Your task to perform on an android device: Empty the shopping cart on costco. Add "razer thresher" to the cart on costco, then select checkout. Image 0: 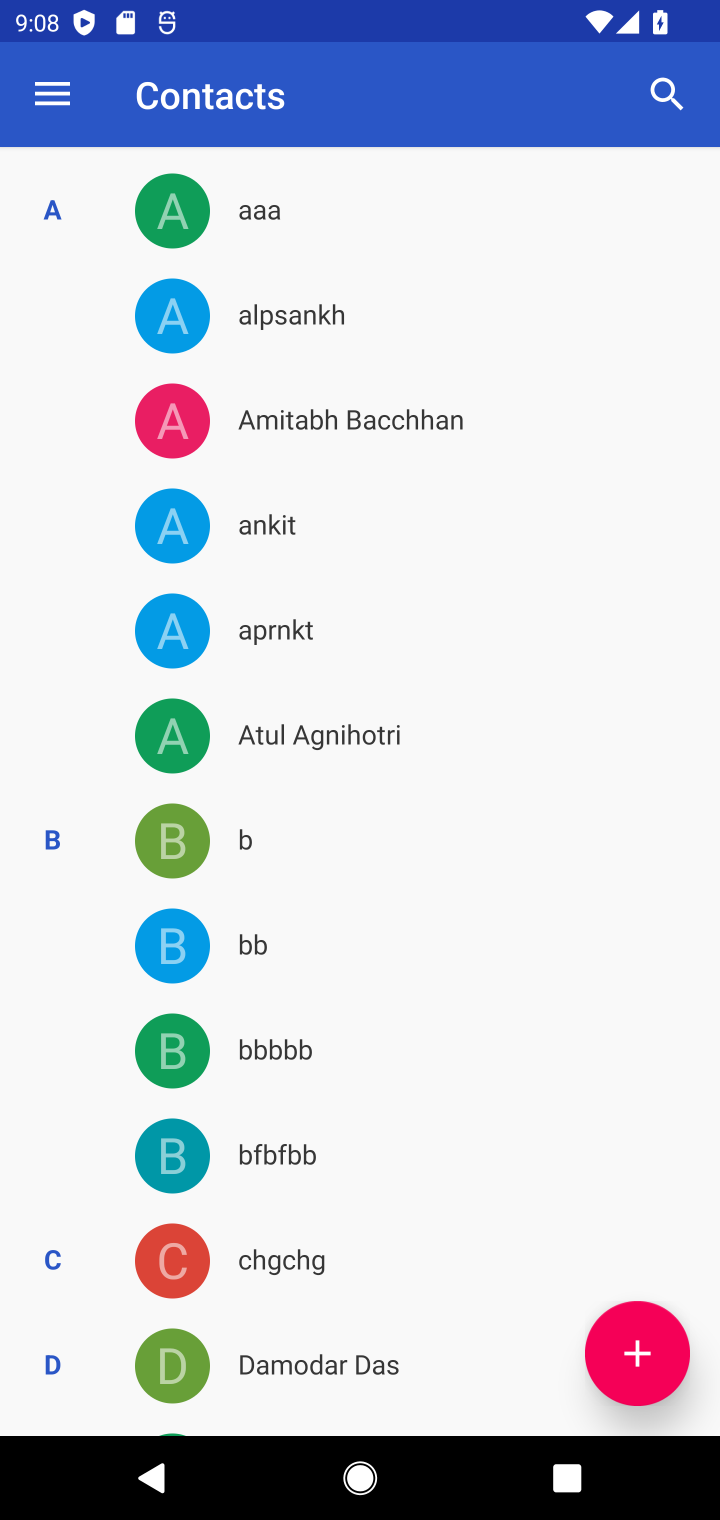
Step 0: press home button
Your task to perform on an android device: Empty the shopping cart on costco. Add "razer thresher" to the cart on costco, then select checkout. Image 1: 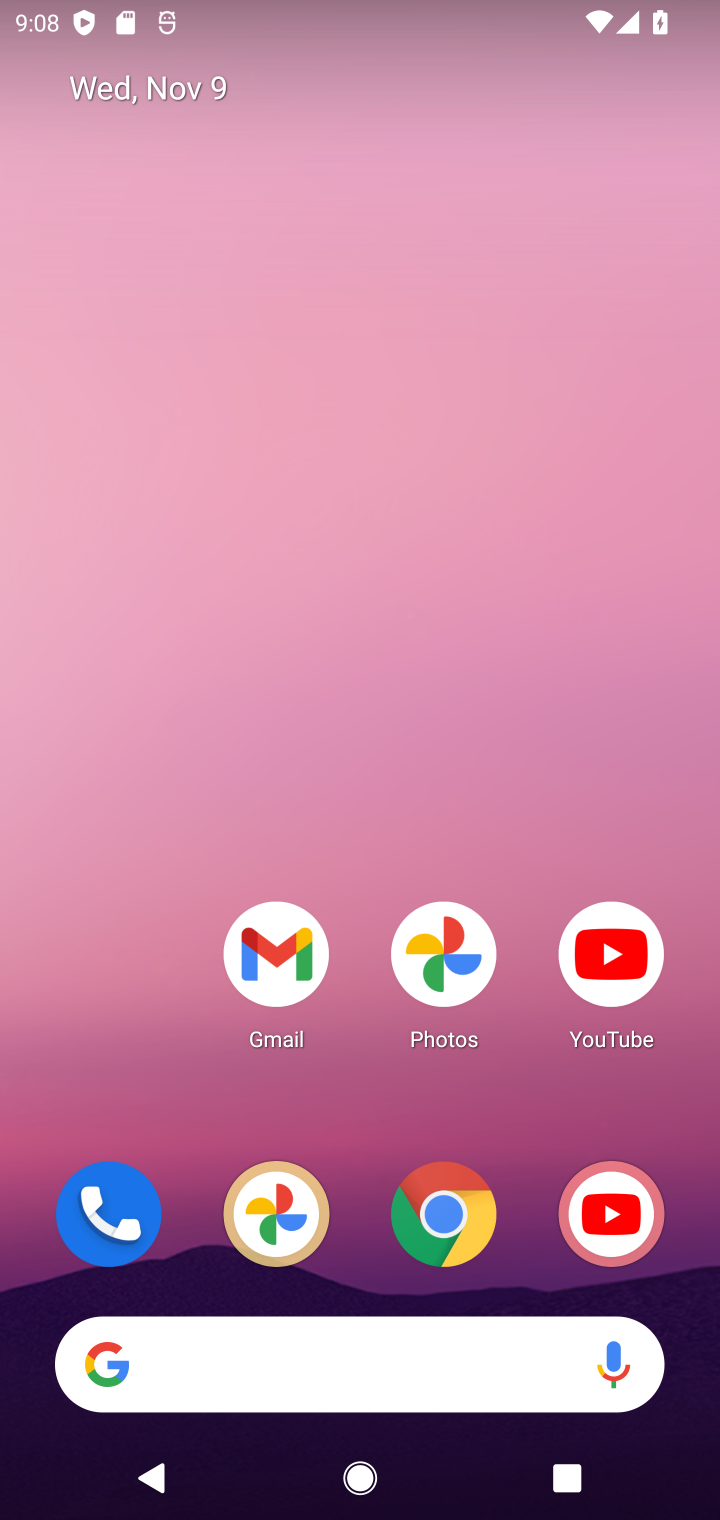
Step 1: drag from (359, 427) to (350, 16)
Your task to perform on an android device: Empty the shopping cart on costco. Add "razer thresher" to the cart on costco, then select checkout. Image 2: 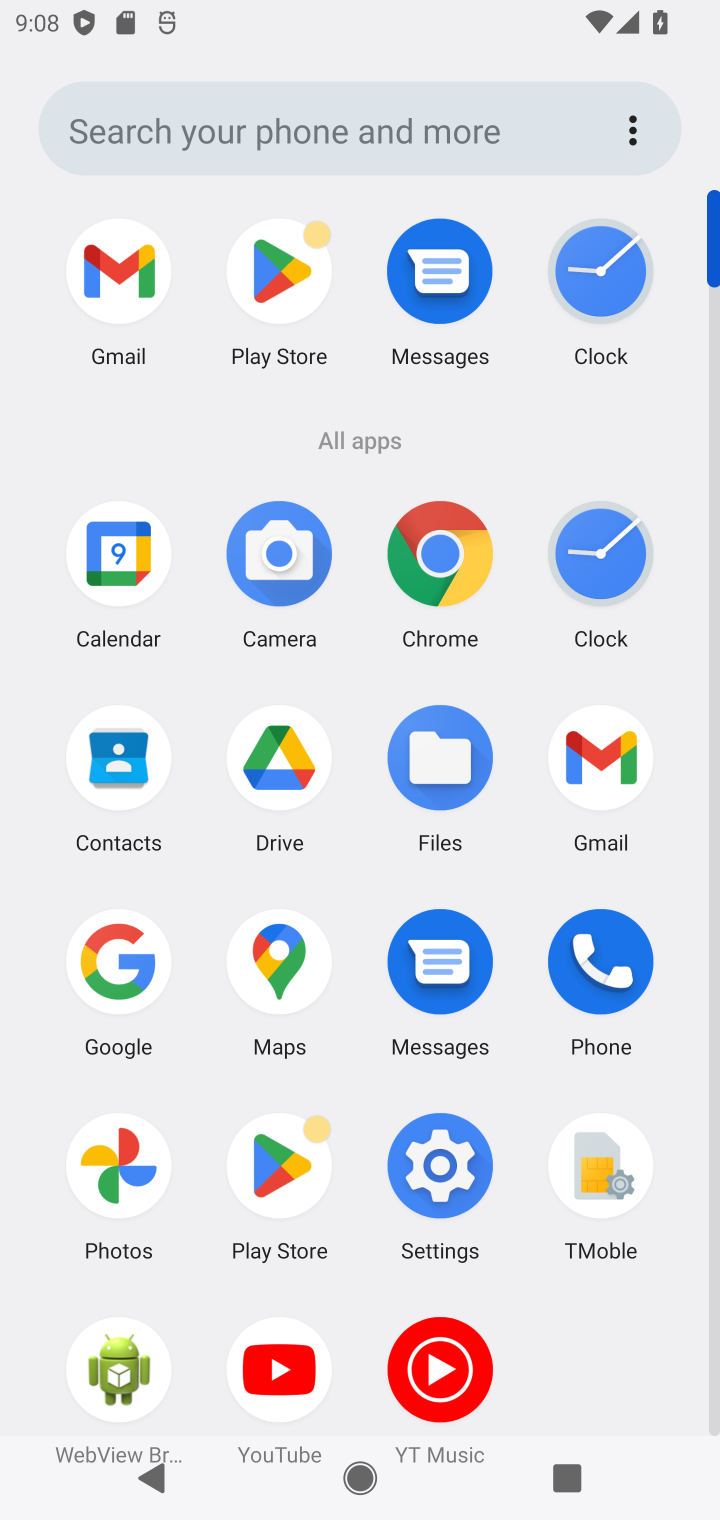
Step 2: click (422, 559)
Your task to perform on an android device: Empty the shopping cart on costco. Add "razer thresher" to the cart on costco, then select checkout. Image 3: 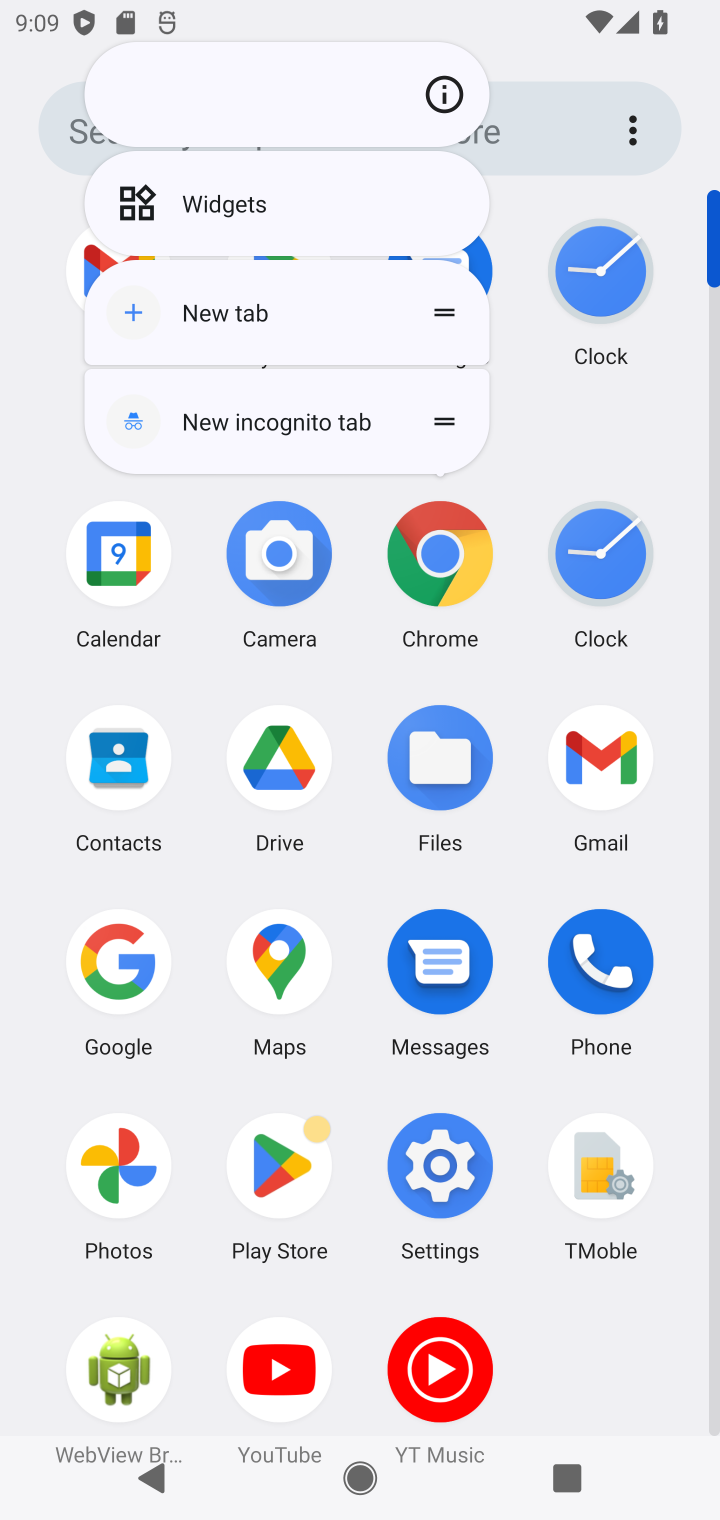
Step 3: click (455, 567)
Your task to perform on an android device: Empty the shopping cart on costco. Add "razer thresher" to the cart on costco, then select checkout. Image 4: 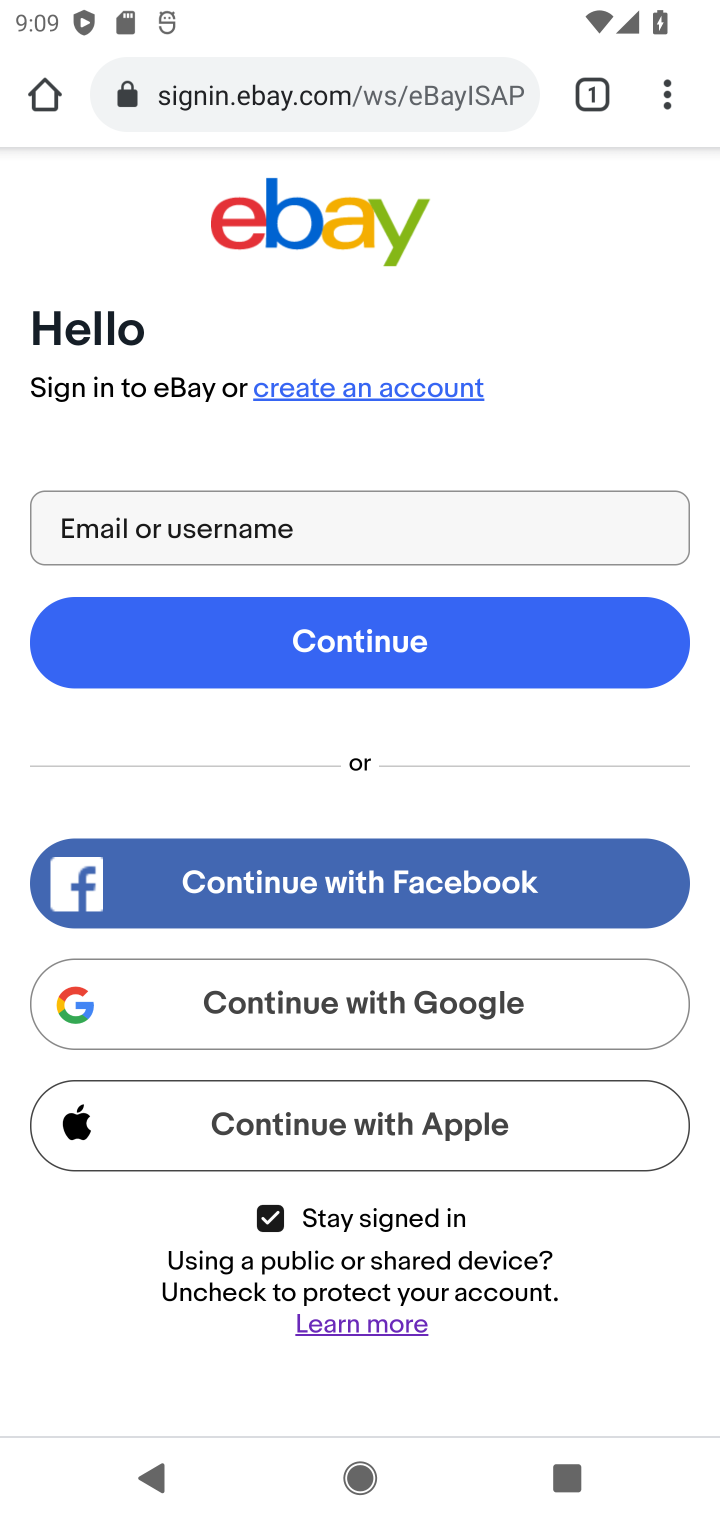
Step 4: click (284, 108)
Your task to perform on an android device: Empty the shopping cart on costco. Add "razer thresher" to the cart on costco, then select checkout. Image 5: 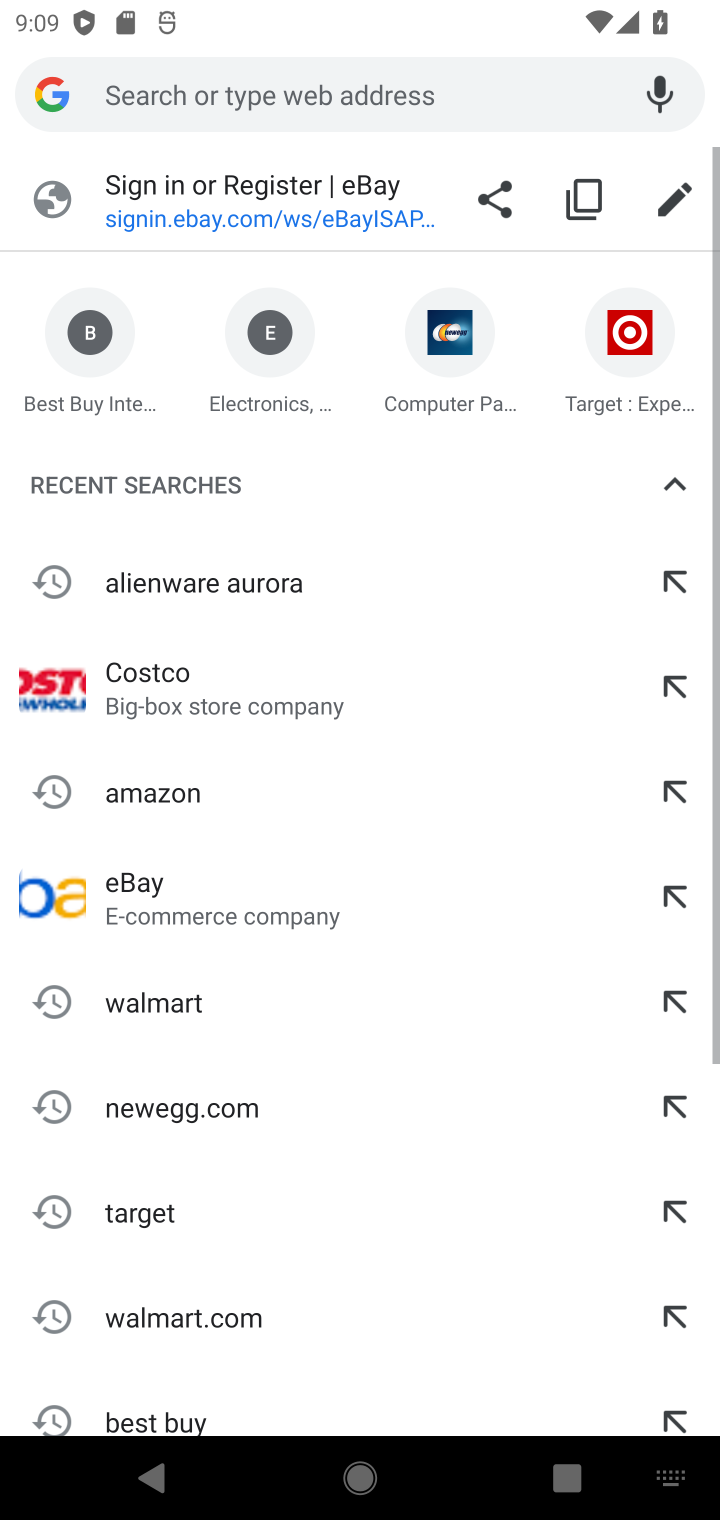
Step 5: type "costco.com"
Your task to perform on an android device: Empty the shopping cart on costco. Add "razer thresher" to the cart on costco, then select checkout. Image 6: 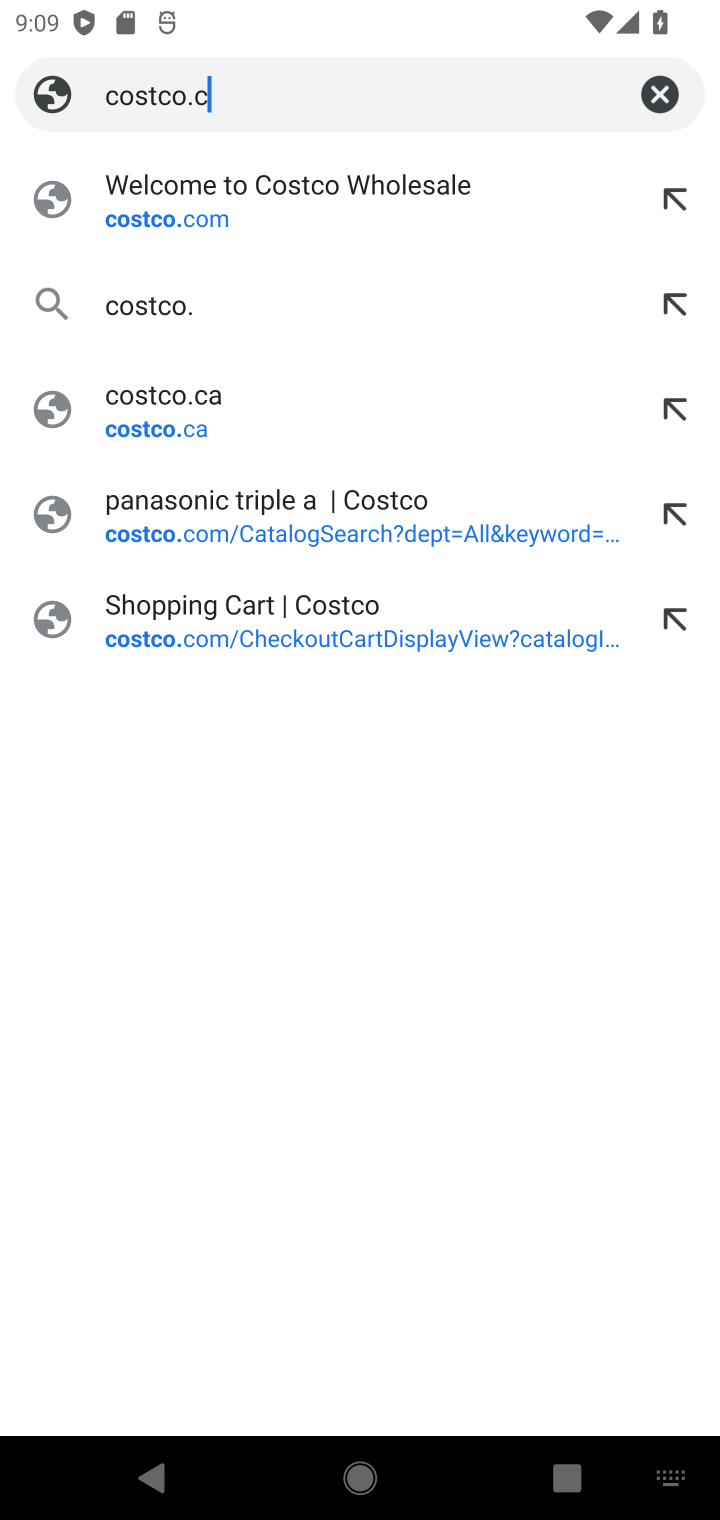
Step 6: press enter
Your task to perform on an android device: Empty the shopping cart on costco. Add "razer thresher" to the cart on costco, then select checkout. Image 7: 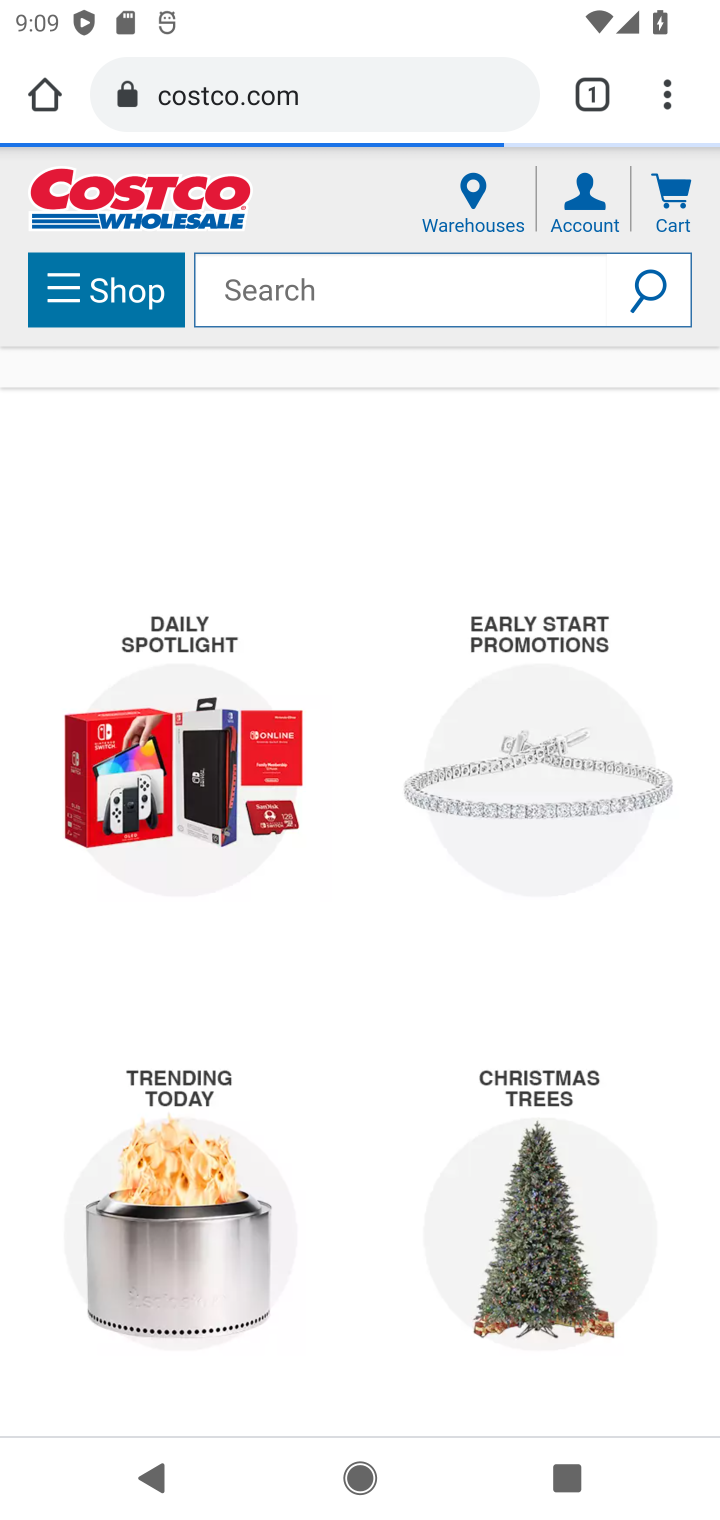
Step 7: click (669, 204)
Your task to perform on an android device: Empty the shopping cart on costco. Add "razer thresher" to the cart on costco, then select checkout. Image 8: 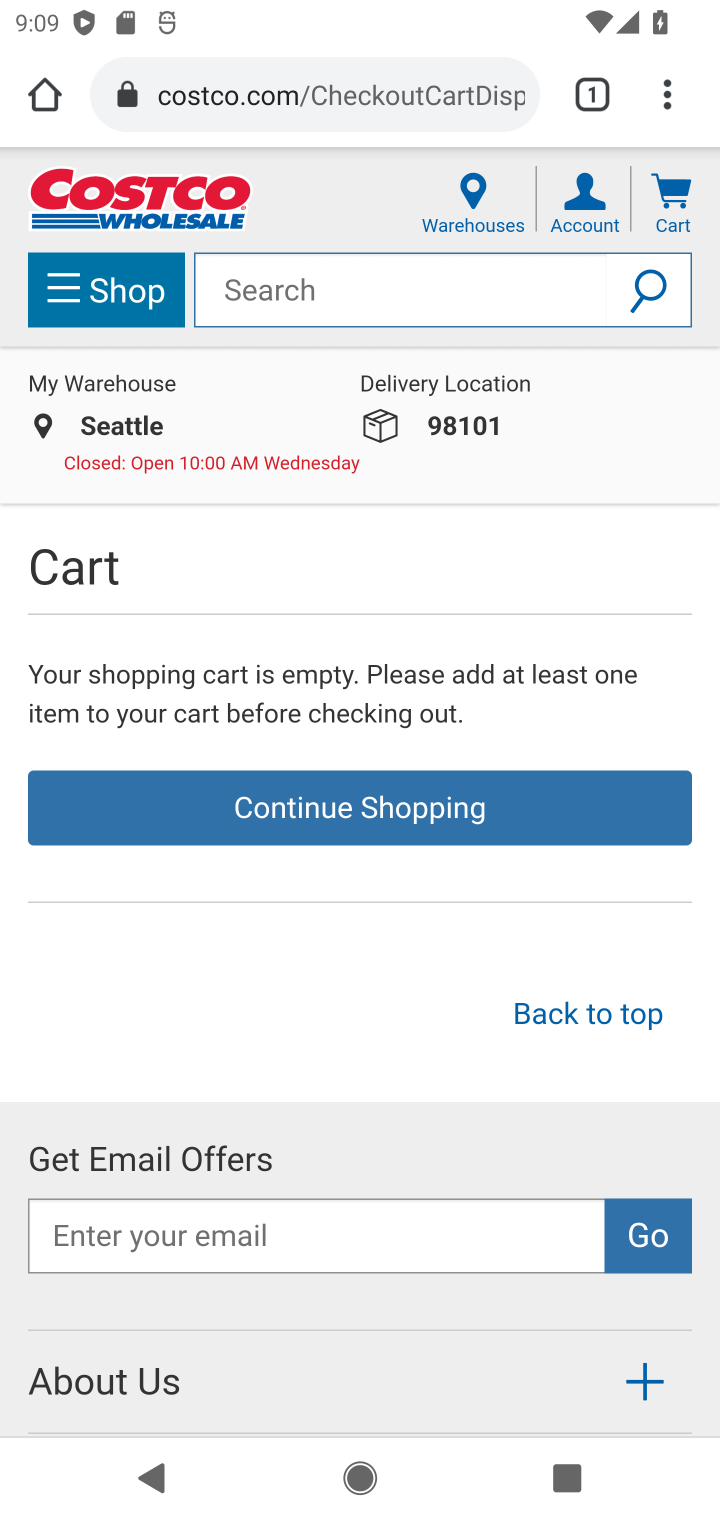
Step 8: click (429, 290)
Your task to perform on an android device: Empty the shopping cart on costco. Add "razer thresher" to the cart on costco, then select checkout. Image 9: 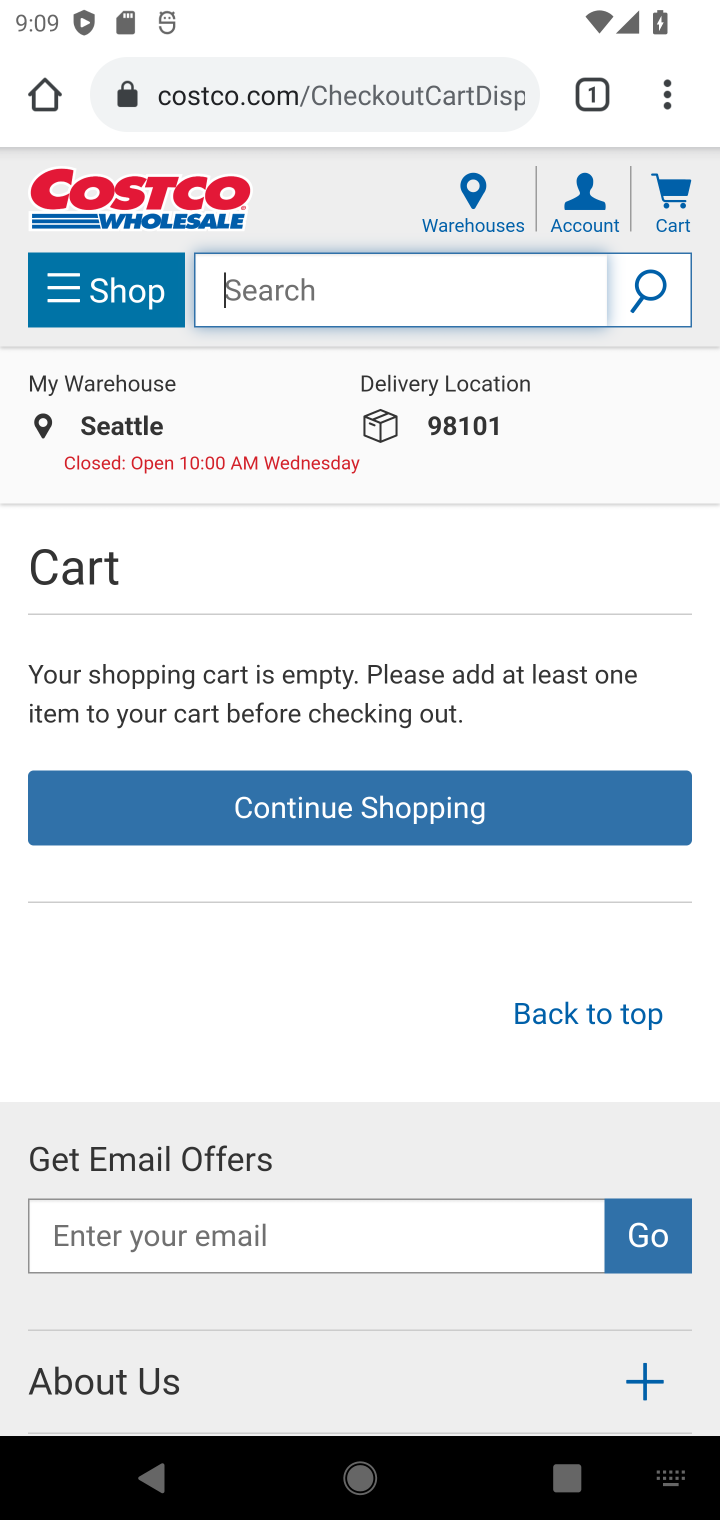
Step 9: type "razer thresher"
Your task to perform on an android device: Empty the shopping cart on costco. Add "razer thresher" to the cart on costco, then select checkout. Image 10: 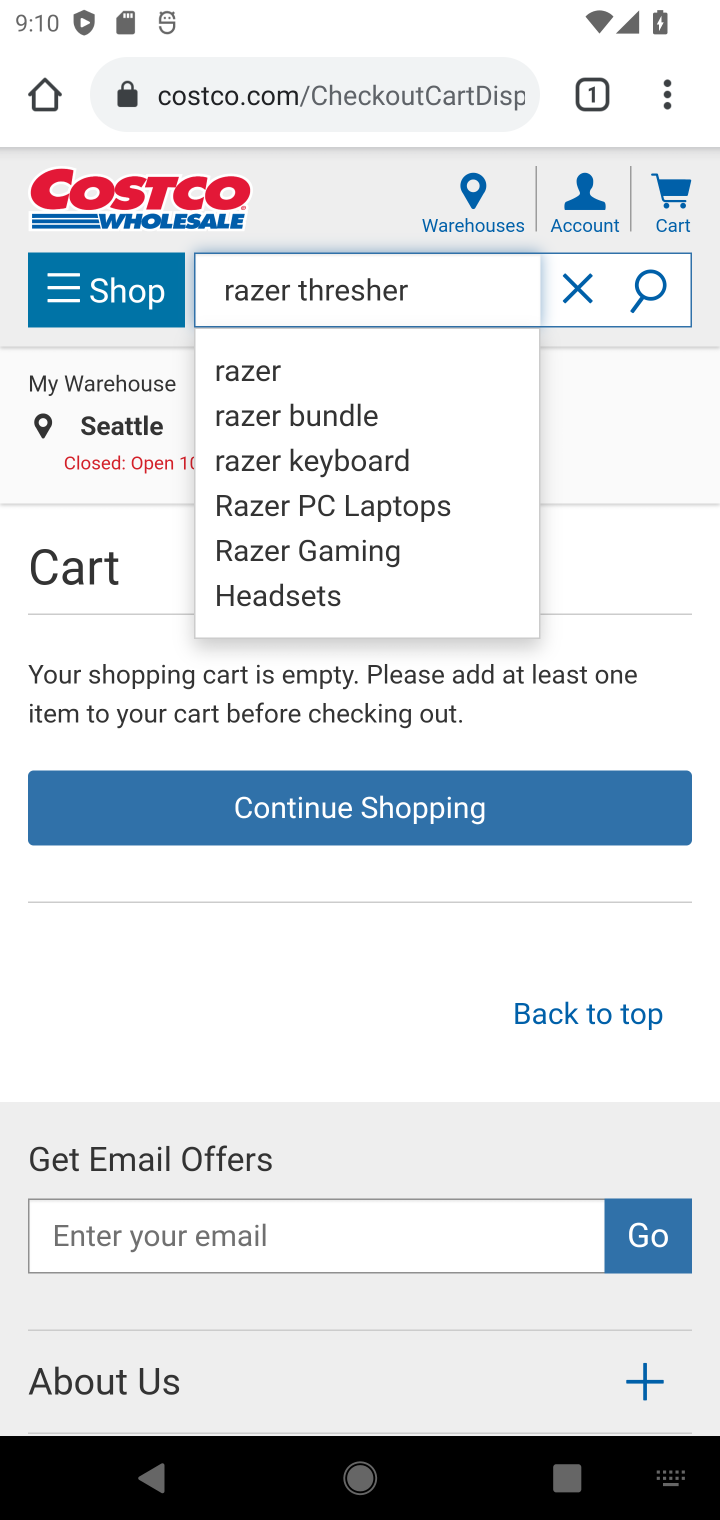
Step 10: press enter
Your task to perform on an android device: Empty the shopping cart on costco. Add "razer thresher" to the cart on costco, then select checkout. Image 11: 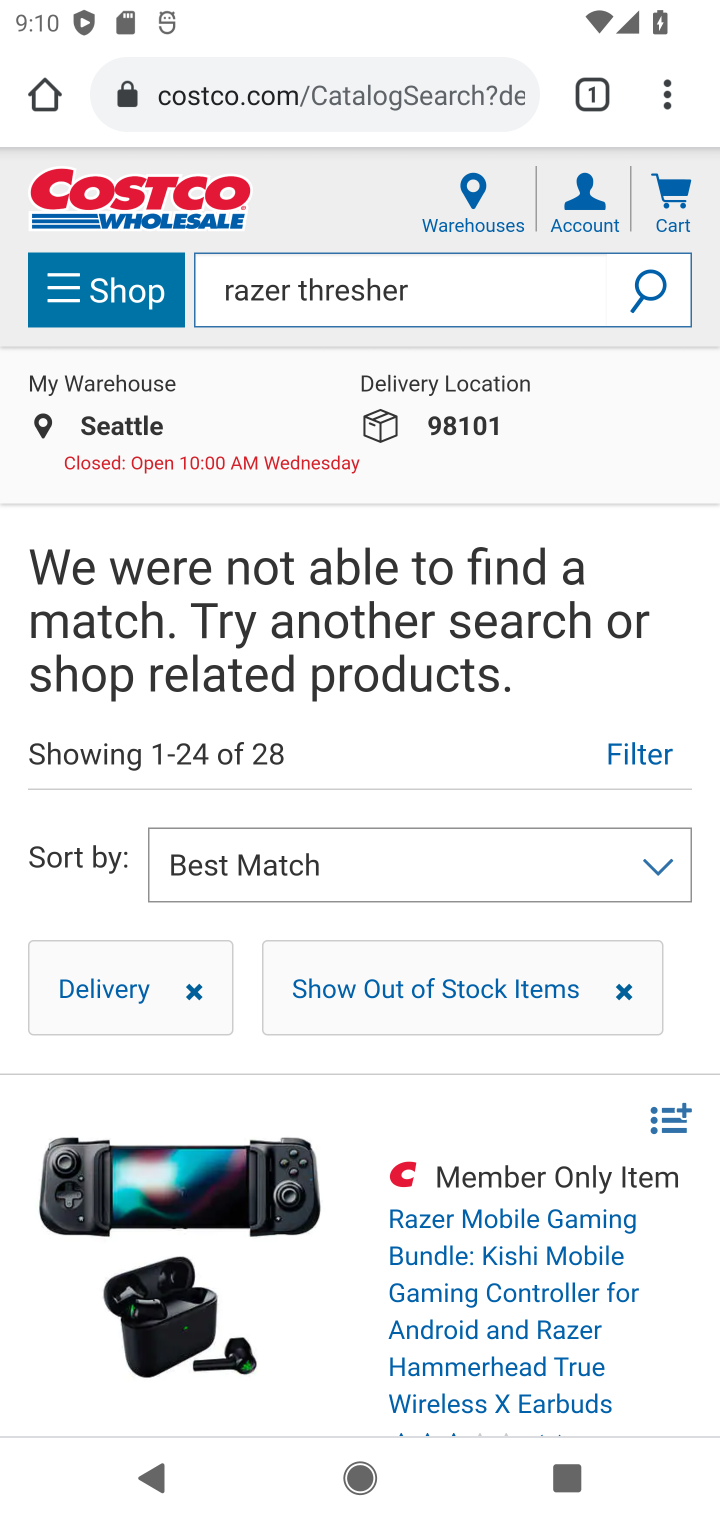
Step 11: task complete